Your task to perform on an android device: Open calendar and show me the third week of next month Image 0: 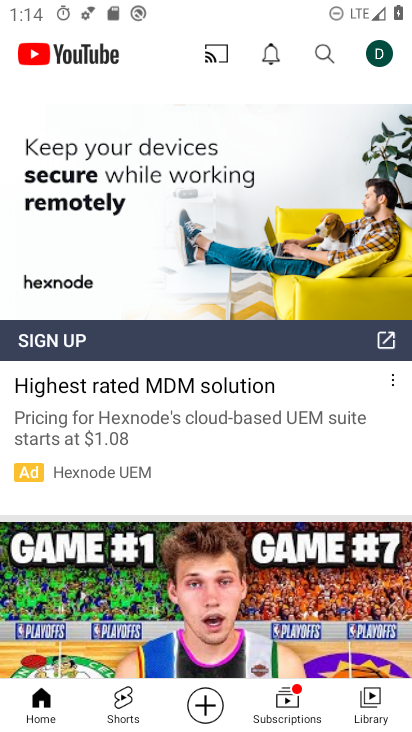
Step 0: press home button
Your task to perform on an android device: Open calendar and show me the third week of next month Image 1: 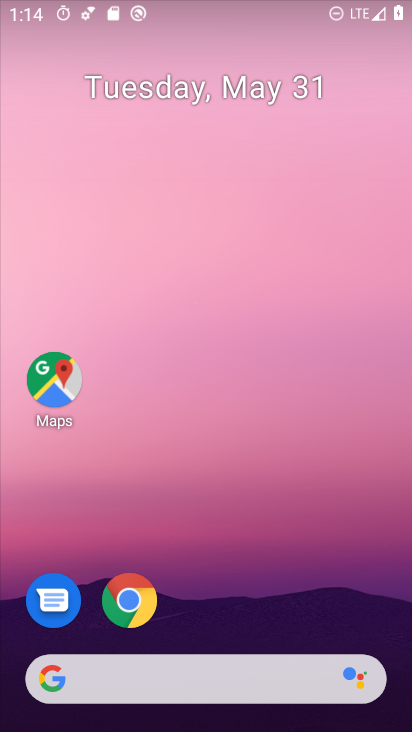
Step 1: drag from (255, 728) to (234, 575)
Your task to perform on an android device: Open calendar and show me the third week of next month Image 2: 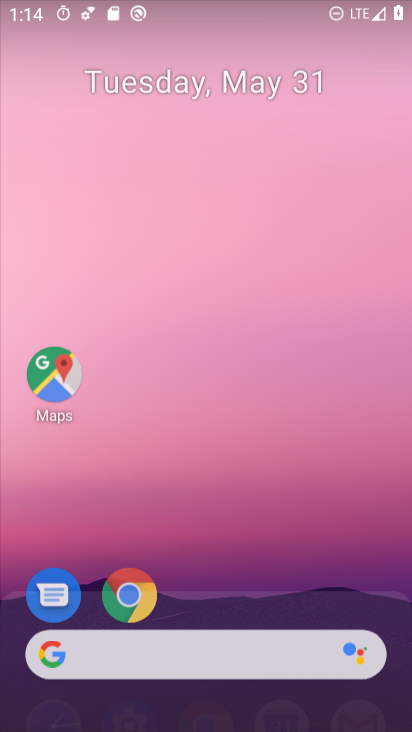
Step 2: drag from (231, 194) to (231, 85)
Your task to perform on an android device: Open calendar and show me the third week of next month Image 3: 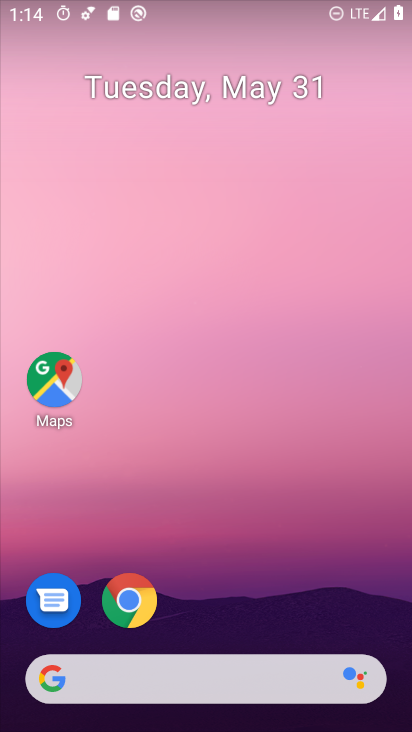
Step 3: drag from (242, 721) to (194, 0)
Your task to perform on an android device: Open calendar and show me the third week of next month Image 4: 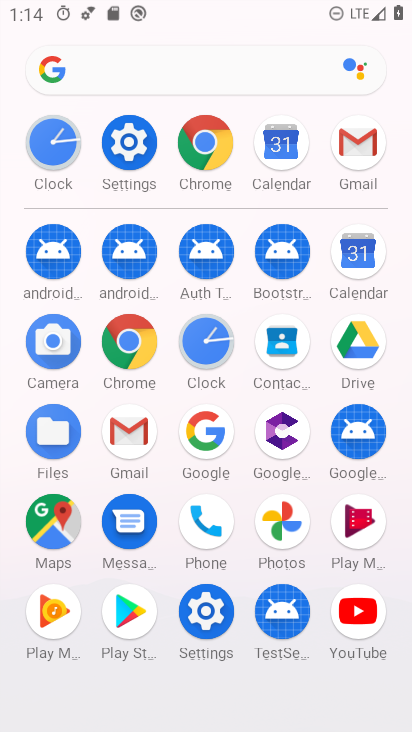
Step 4: click (357, 257)
Your task to perform on an android device: Open calendar and show me the third week of next month Image 5: 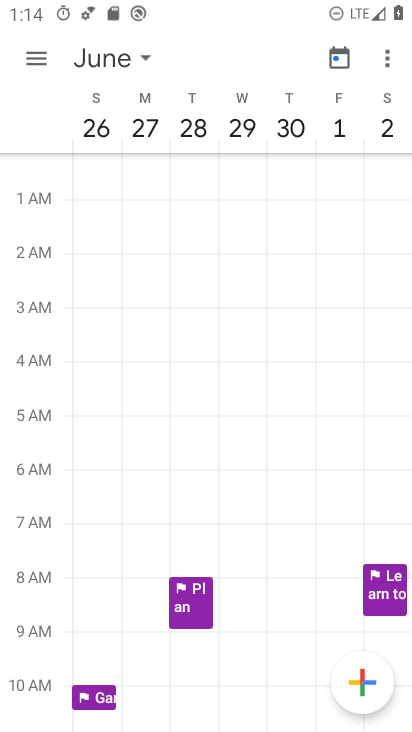
Step 5: click (146, 57)
Your task to perform on an android device: Open calendar and show me the third week of next month Image 6: 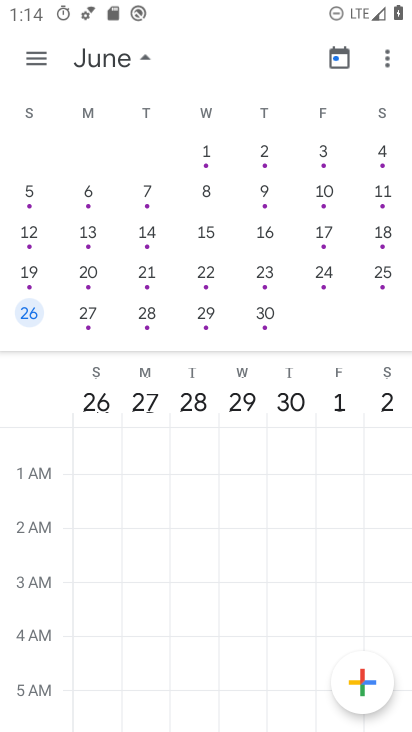
Step 6: click (84, 268)
Your task to perform on an android device: Open calendar and show me the third week of next month Image 7: 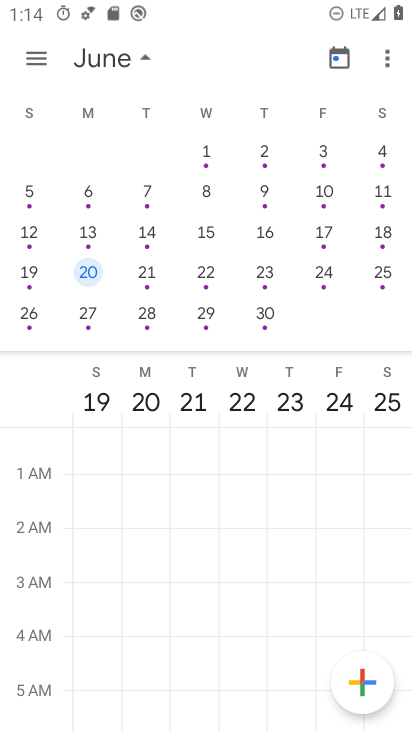
Step 7: click (85, 267)
Your task to perform on an android device: Open calendar and show me the third week of next month Image 8: 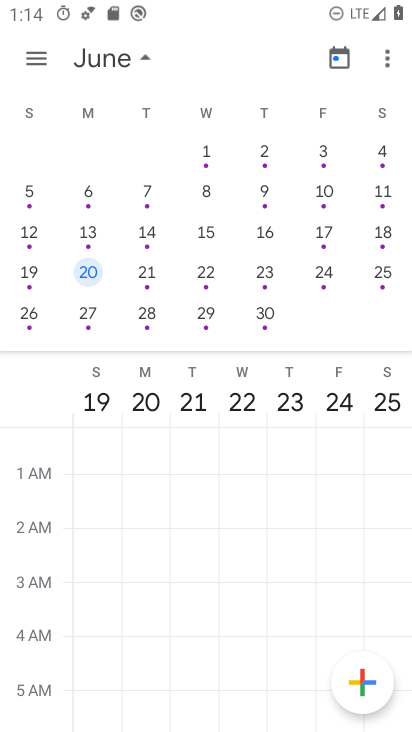
Step 8: click (39, 54)
Your task to perform on an android device: Open calendar and show me the third week of next month Image 9: 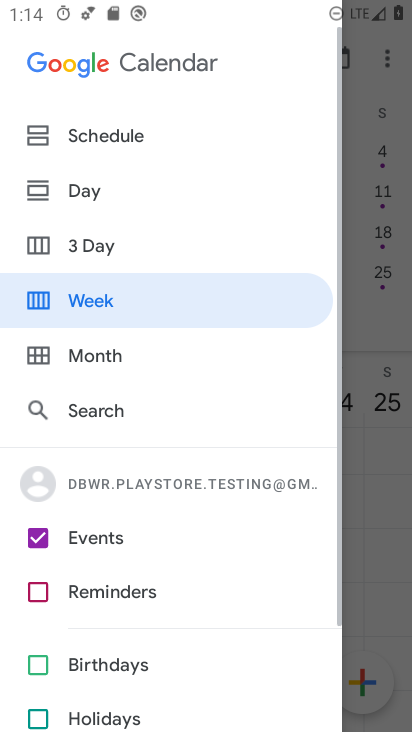
Step 9: click (93, 299)
Your task to perform on an android device: Open calendar and show me the third week of next month Image 10: 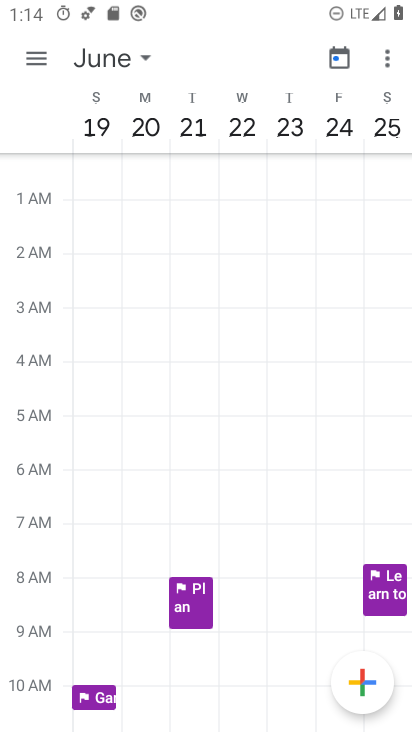
Step 10: task complete